Your task to perform on an android device: Open Amazon Image 0: 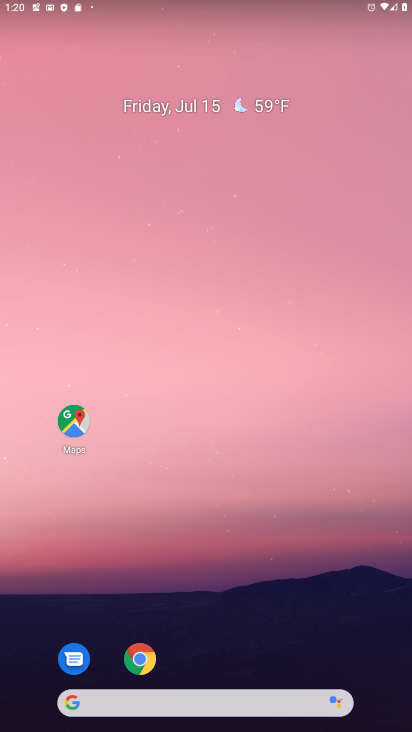
Step 0: click (138, 662)
Your task to perform on an android device: Open Amazon Image 1: 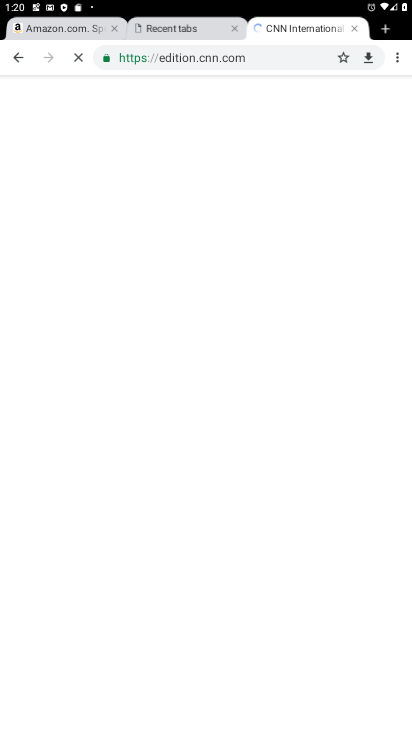
Step 1: click (394, 60)
Your task to perform on an android device: Open Amazon Image 2: 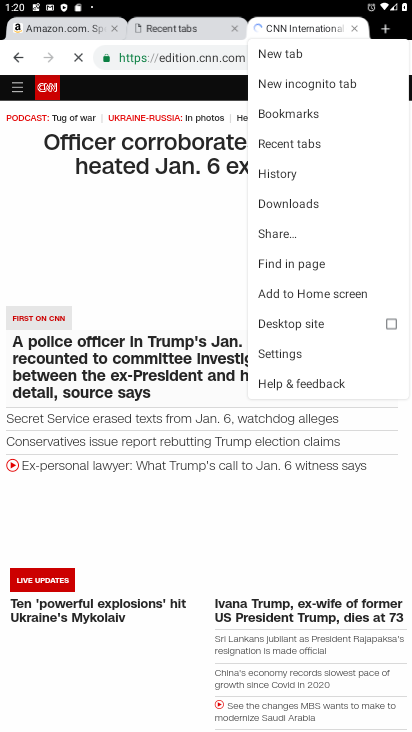
Step 2: click (291, 52)
Your task to perform on an android device: Open Amazon Image 3: 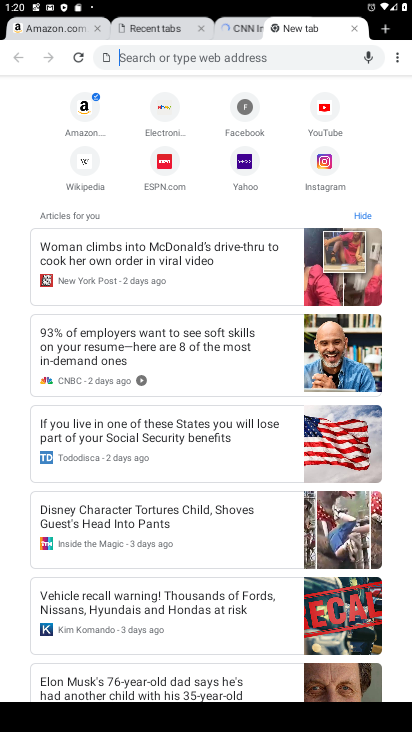
Step 3: click (88, 106)
Your task to perform on an android device: Open Amazon Image 4: 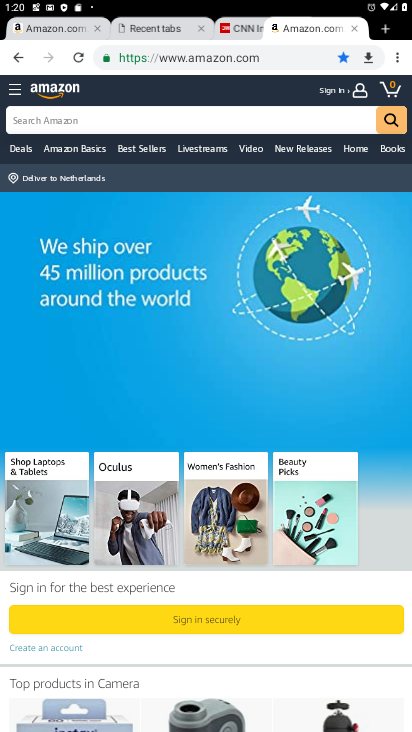
Step 4: task complete